Your task to perform on an android device: Search for sushi restaurants on Maps Image 0: 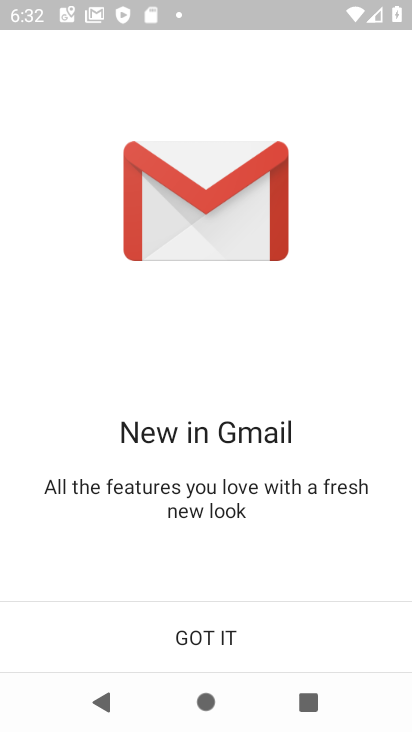
Step 0: press home button
Your task to perform on an android device: Search for sushi restaurants on Maps Image 1: 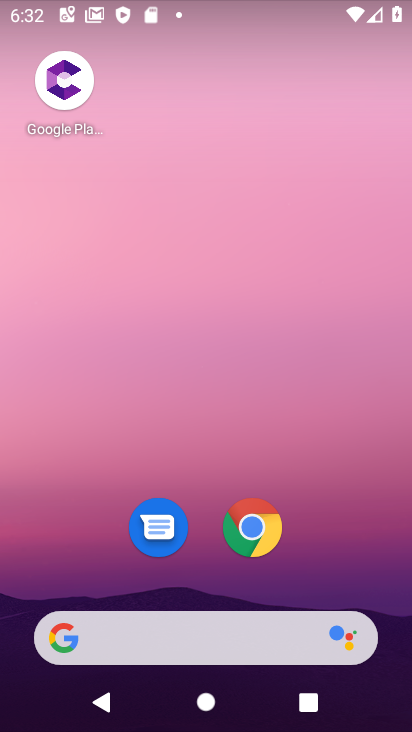
Step 1: drag from (379, 633) to (134, 3)
Your task to perform on an android device: Search for sushi restaurants on Maps Image 2: 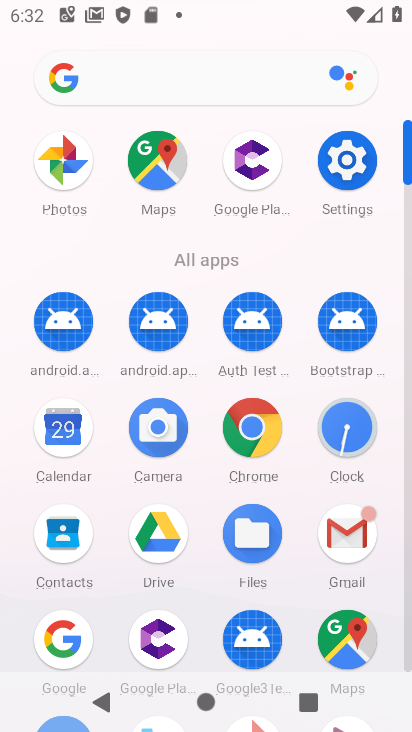
Step 2: click (323, 632)
Your task to perform on an android device: Search for sushi restaurants on Maps Image 3: 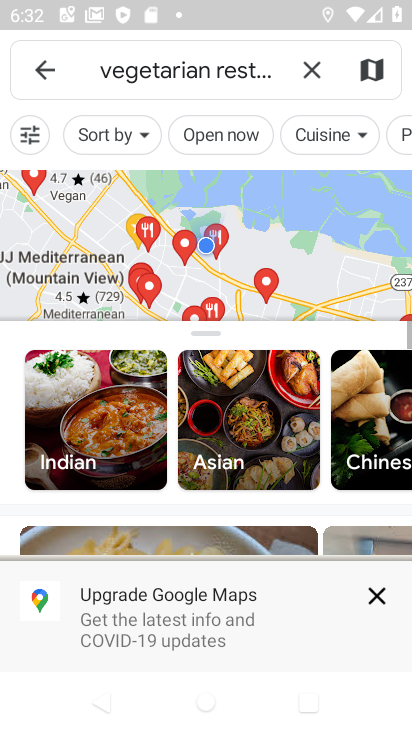
Step 3: click (318, 65)
Your task to perform on an android device: Search for sushi restaurants on Maps Image 4: 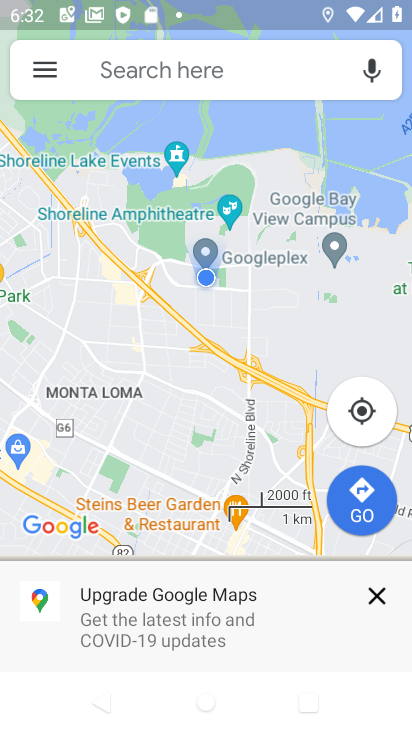
Step 4: click (171, 64)
Your task to perform on an android device: Search for sushi restaurants on Maps Image 5: 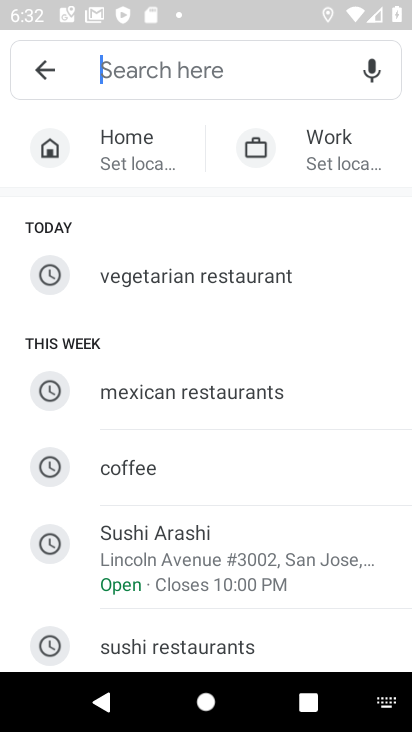
Step 5: click (255, 661)
Your task to perform on an android device: Search for sushi restaurants on Maps Image 6: 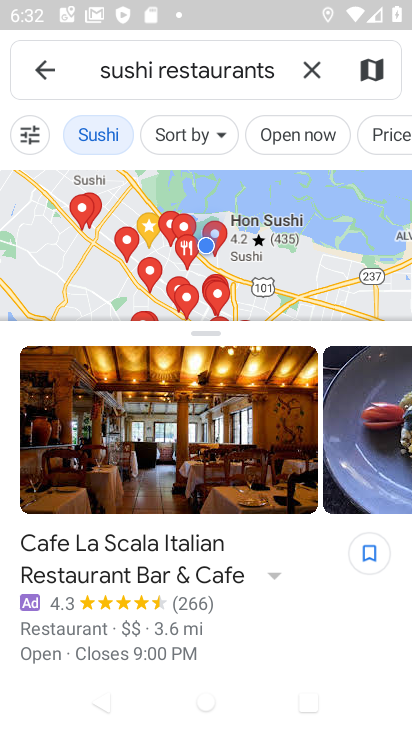
Step 6: task complete